Your task to perform on an android device: What's on my calendar tomorrow? Image 0: 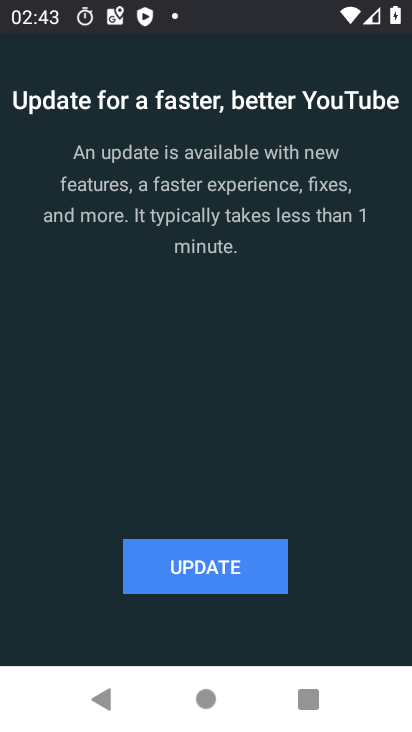
Step 0: press home button
Your task to perform on an android device: What's on my calendar tomorrow? Image 1: 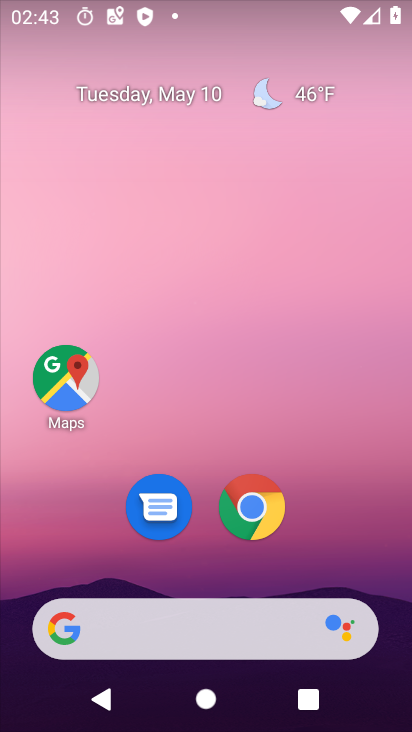
Step 1: drag from (253, 659) to (356, 128)
Your task to perform on an android device: What's on my calendar tomorrow? Image 2: 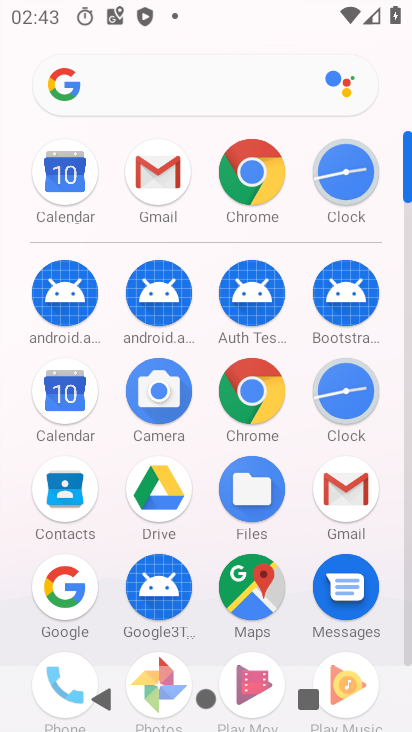
Step 2: click (71, 397)
Your task to perform on an android device: What's on my calendar tomorrow? Image 3: 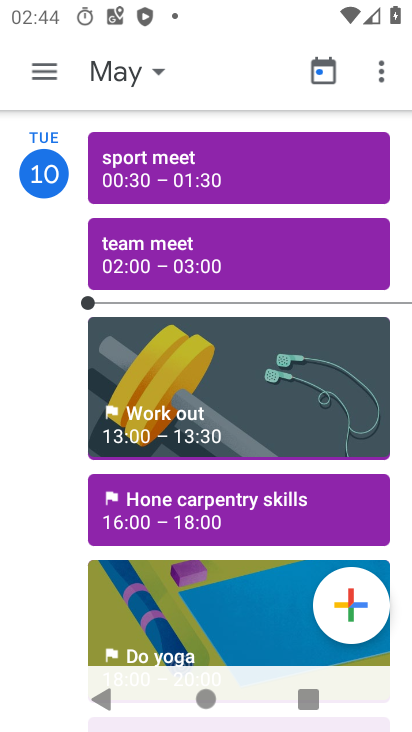
Step 3: click (50, 89)
Your task to perform on an android device: What's on my calendar tomorrow? Image 4: 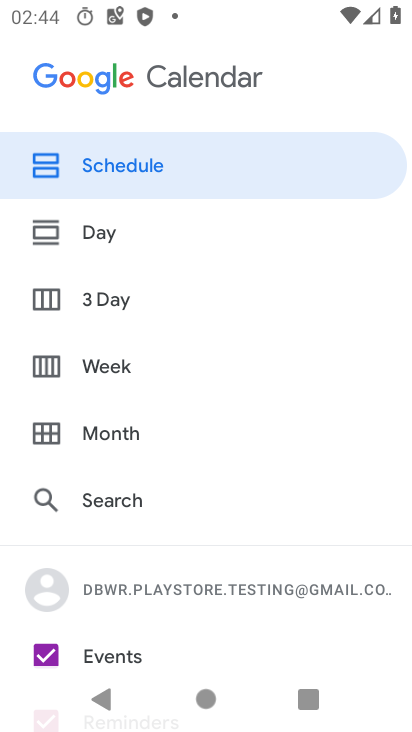
Step 4: click (111, 433)
Your task to perform on an android device: What's on my calendar tomorrow? Image 5: 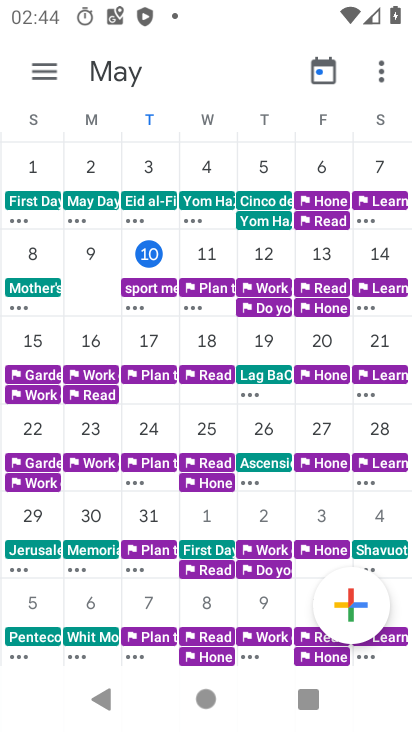
Step 5: click (209, 256)
Your task to perform on an android device: What's on my calendar tomorrow? Image 6: 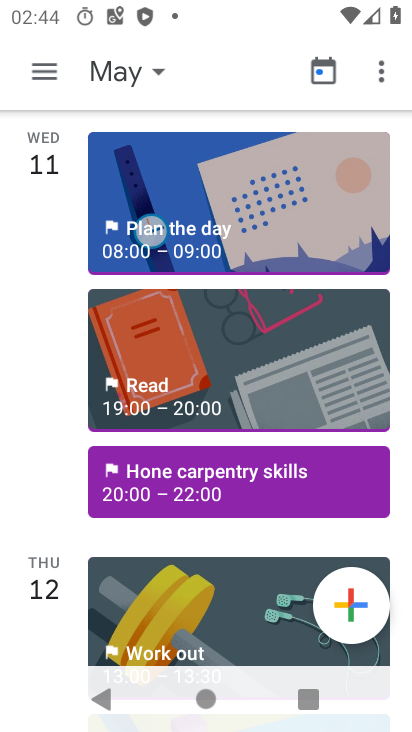
Step 6: task complete